Your task to perform on an android device: check data usage Image 0: 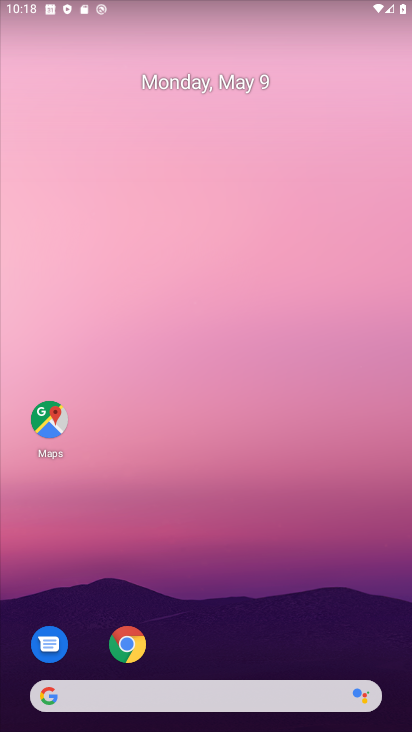
Step 0: drag from (193, 670) to (145, 10)
Your task to perform on an android device: check data usage Image 1: 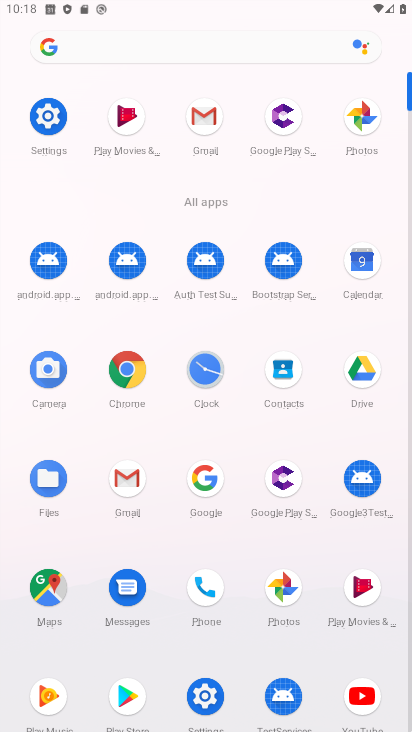
Step 1: click (43, 120)
Your task to perform on an android device: check data usage Image 2: 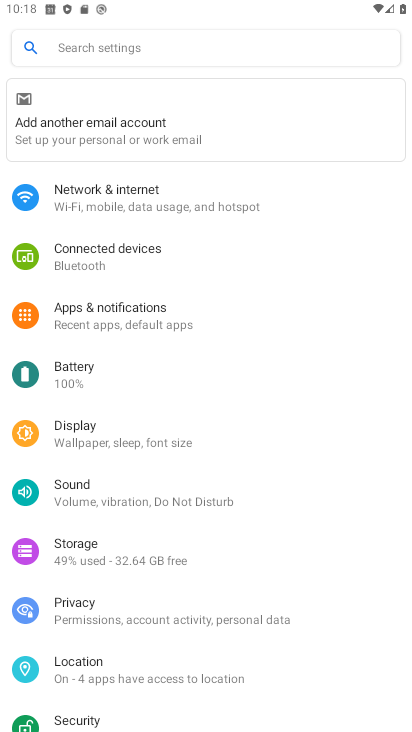
Step 2: click (127, 216)
Your task to perform on an android device: check data usage Image 3: 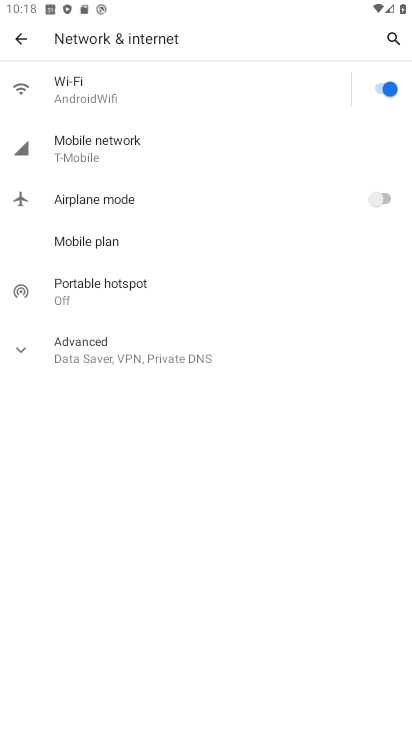
Step 3: click (94, 142)
Your task to perform on an android device: check data usage Image 4: 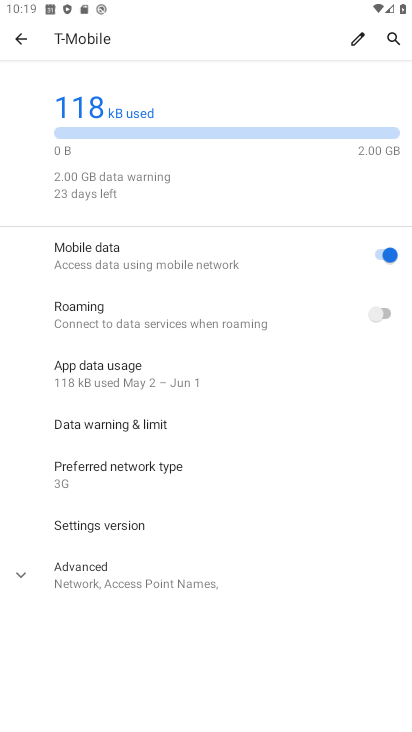
Step 4: click (91, 379)
Your task to perform on an android device: check data usage Image 5: 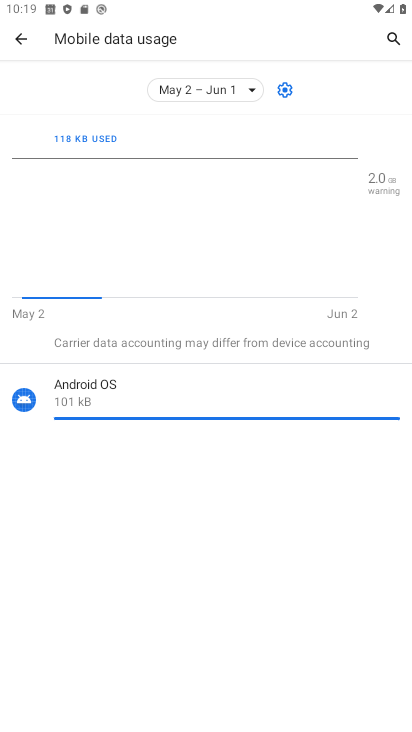
Step 5: task complete